Your task to perform on an android device: check battery use Image 0: 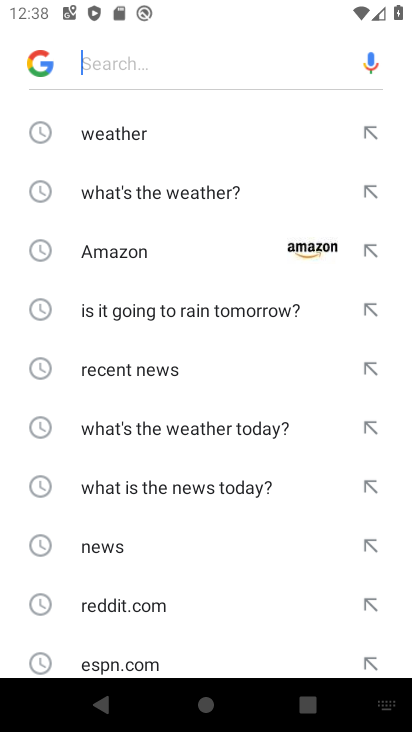
Step 0: press home button
Your task to perform on an android device: check battery use Image 1: 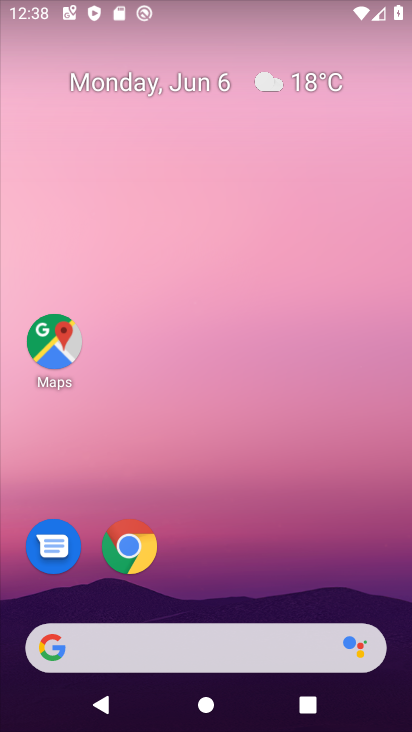
Step 1: drag from (264, 554) to (240, 127)
Your task to perform on an android device: check battery use Image 2: 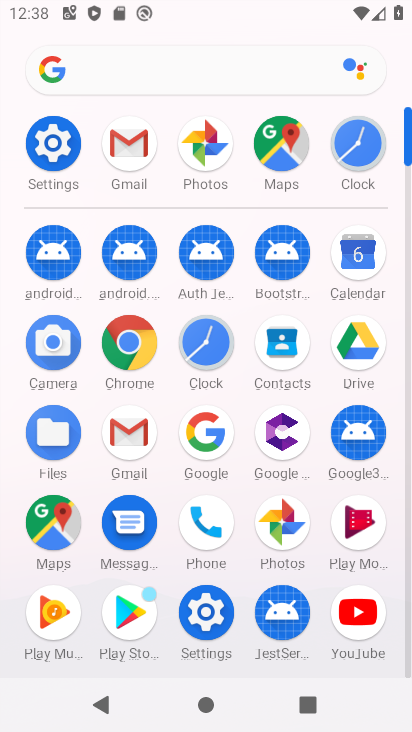
Step 2: click (65, 150)
Your task to perform on an android device: check battery use Image 3: 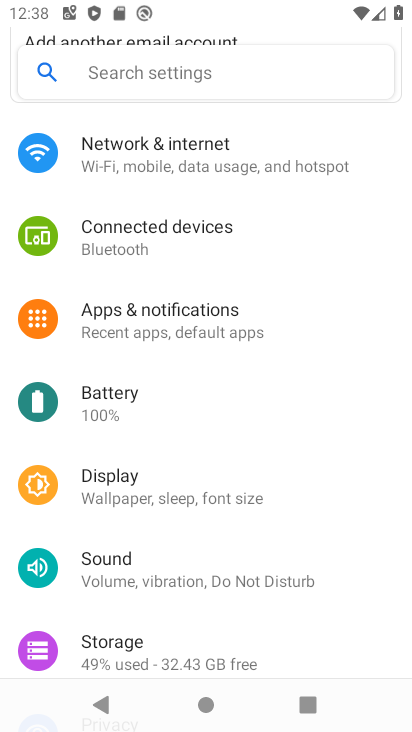
Step 3: click (135, 394)
Your task to perform on an android device: check battery use Image 4: 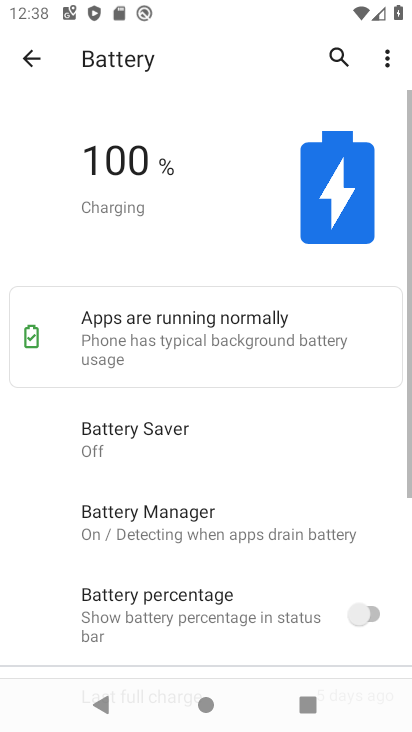
Step 4: click (396, 58)
Your task to perform on an android device: check battery use Image 5: 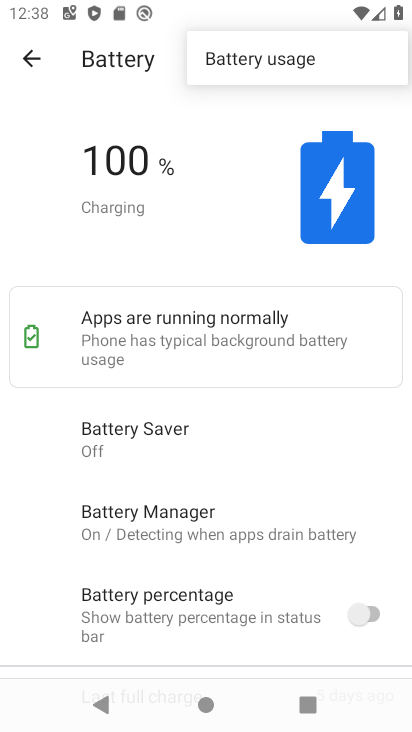
Step 5: click (325, 68)
Your task to perform on an android device: check battery use Image 6: 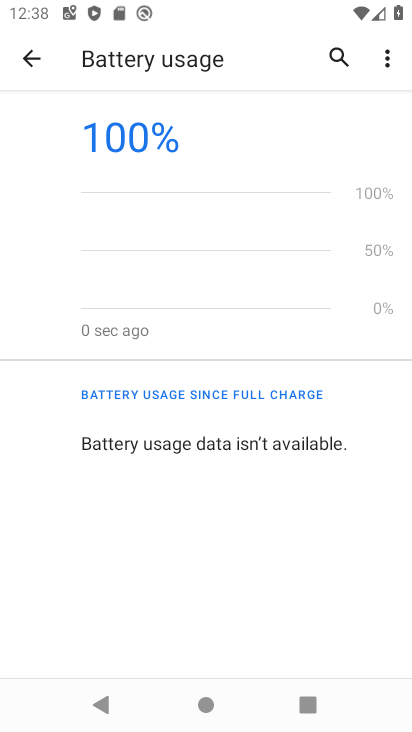
Step 6: task complete